Your task to perform on an android device: see tabs open on other devices in the chrome app Image 0: 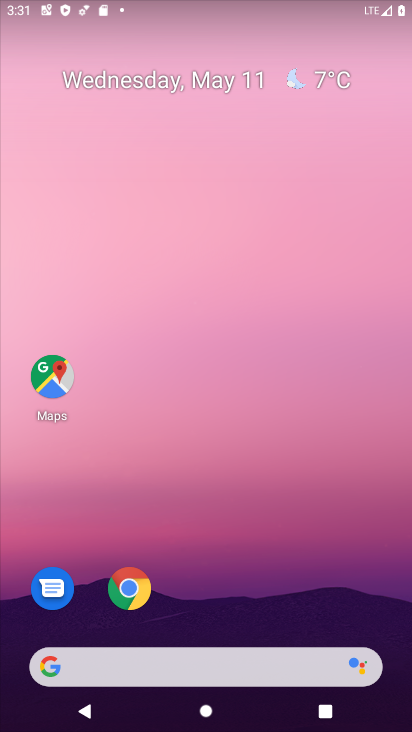
Step 0: click (129, 589)
Your task to perform on an android device: see tabs open on other devices in the chrome app Image 1: 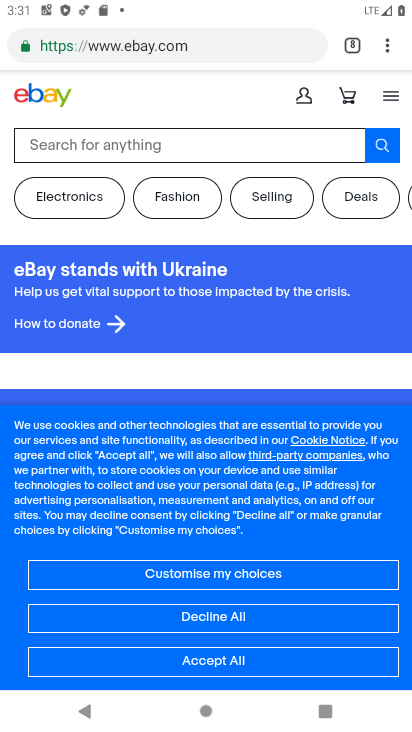
Step 1: click (388, 50)
Your task to perform on an android device: see tabs open on other devices in the chrome app Image 2: 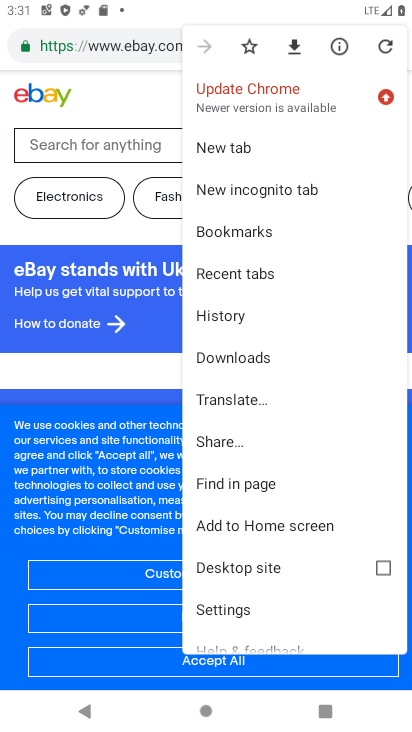
Step 2: click (240, 270)
Your task to perform on an android device: see tabs open on other devices in the chrome app Image 3: 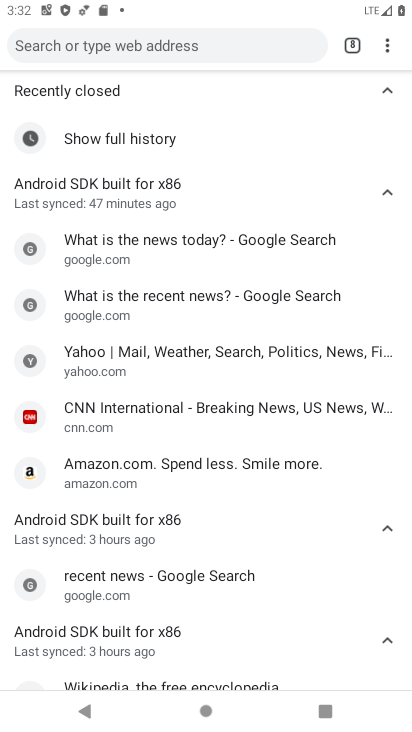
Step 3: task complete